Your task to perform on an android device: open a new tab in the chrome app Image 0: 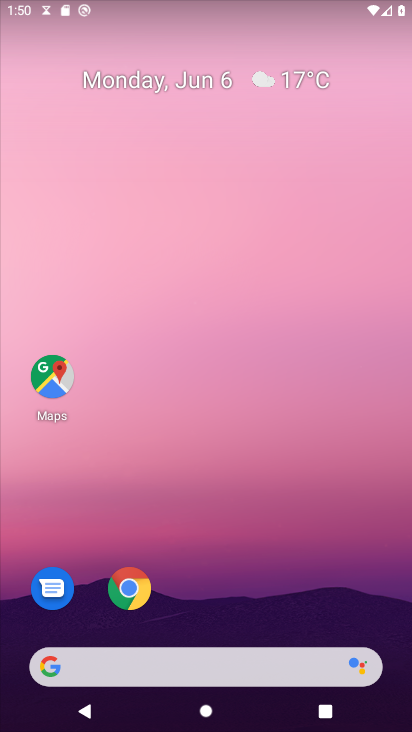
Step 0: click (139, 593)
Your task to perform on an android device: open a new tab in the chrome app Image 1: 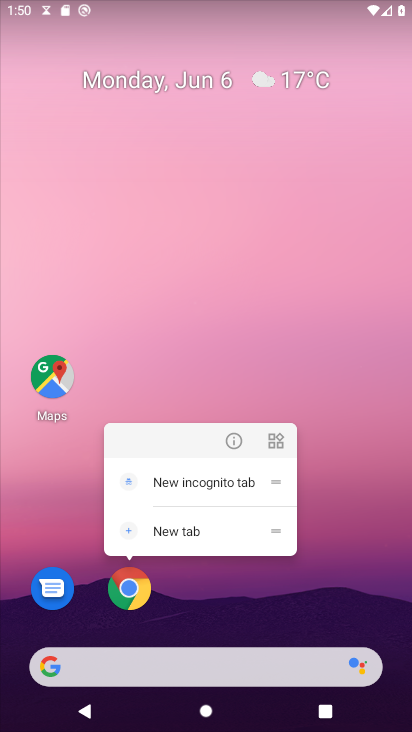
Step 1: click (128, 598)
Your task to perform on an android device: open a new tab in the chrome app Image 2: 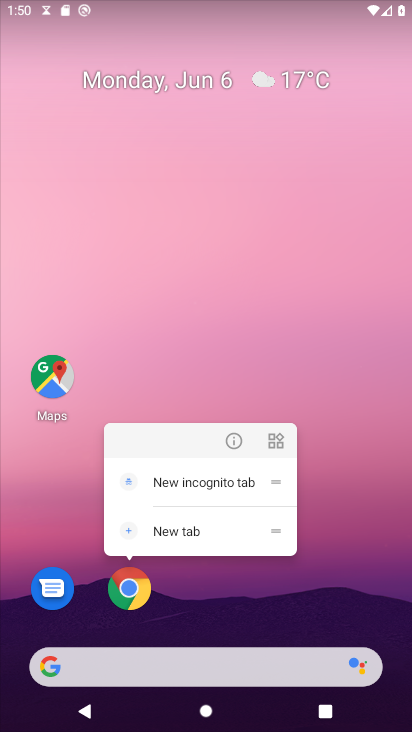
Step 2: click (130, 591)
Your task to perform on an android device: open a new tab in the chrome app Image 3: 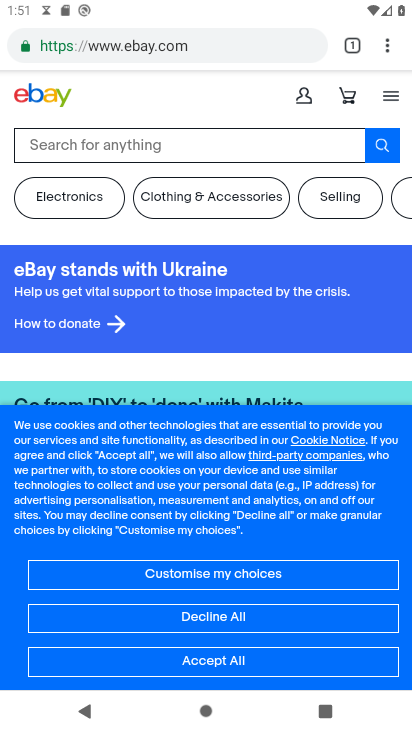
Step 3: click (352, 45)
Your task to perform on an android device: open a new tab in the chrome app Image 4: 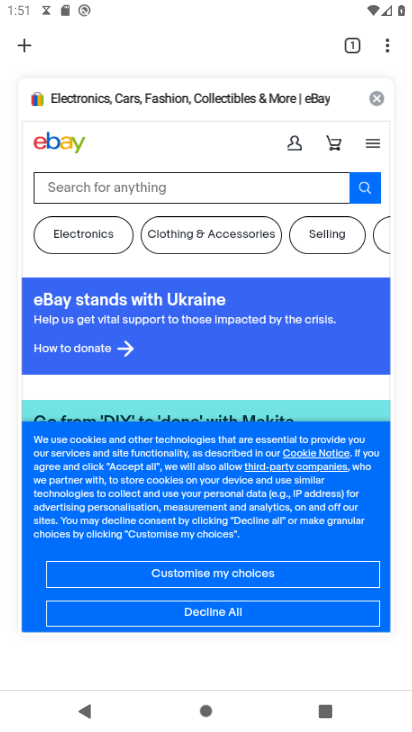
Step 4: click (20, 48)
Your task to perform on an android device: open a new tab in the chrome app Image 5: 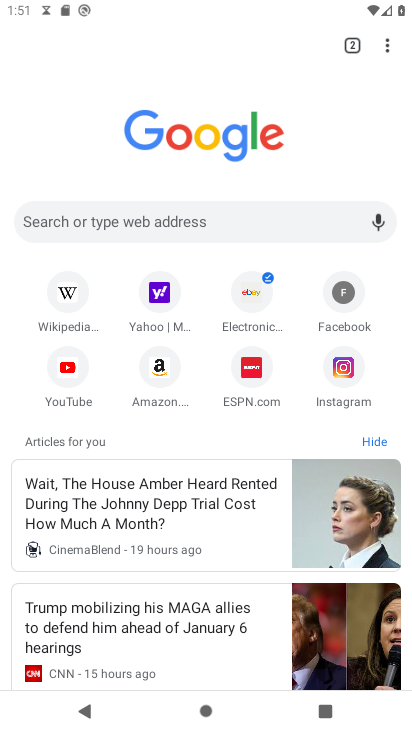
Step 5: task complete